Your task to perform on an android device: change the clock display to analog Image 0: 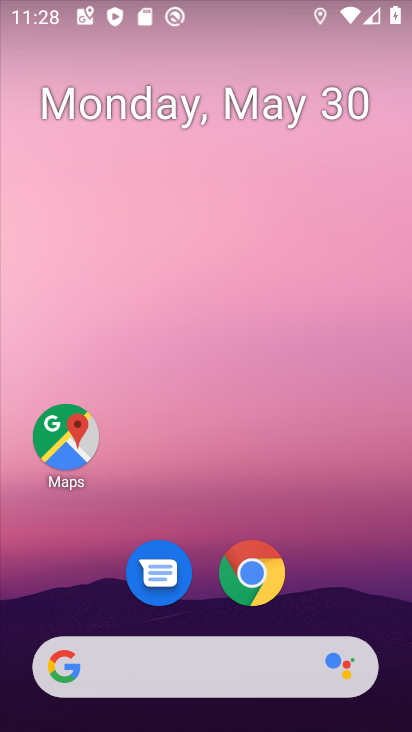
Step 0: drag from (210, 570) to (349, 3)
Your task to perform on an android device: change the clock display to analog Image 1: 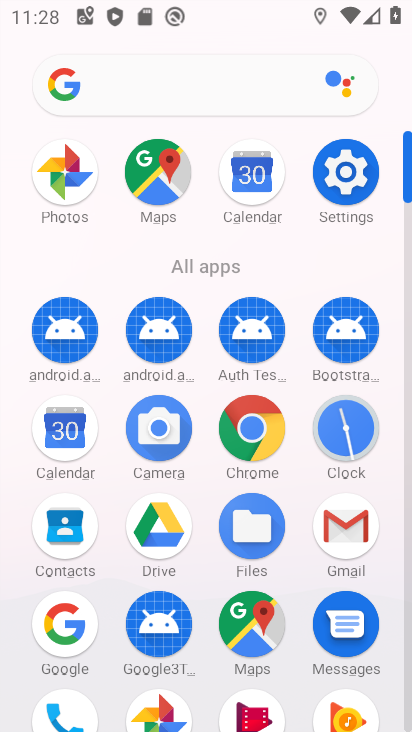
Step 1: click (343, 429)
Your task to perform on an android device: change the clock display to analog Image 2: 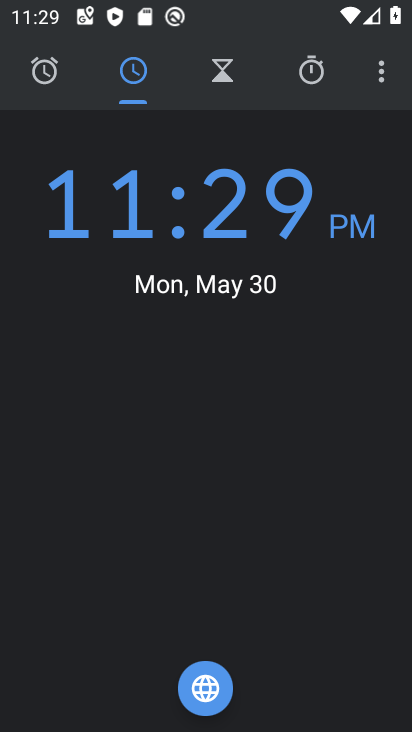
Step 2: click (381, 65)
Your task to perform on an android device: change the clock display to analog Image 3: 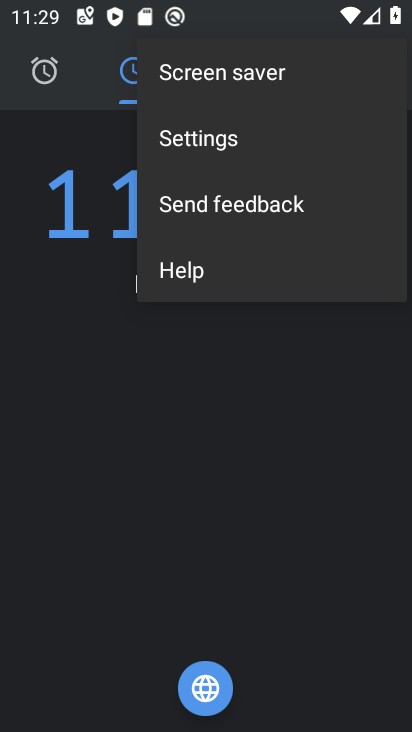
Step 3: click (265, 134)
Your task to perform on an android device: change the clock display to analog Image 4: 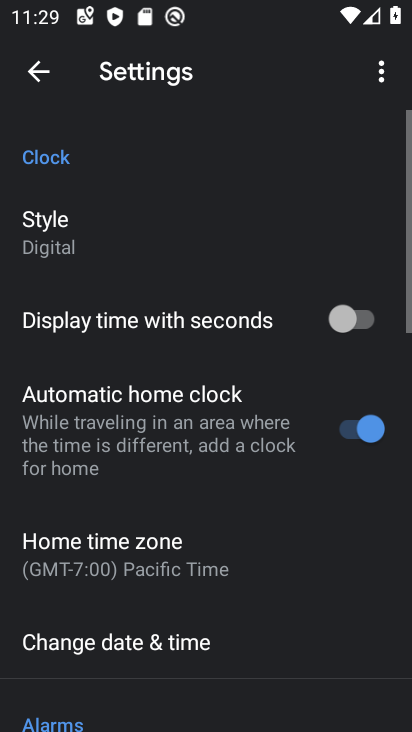
Step 4: click (34, 249)
Your task to perform on an android device: change the clock display to analog Image 5: 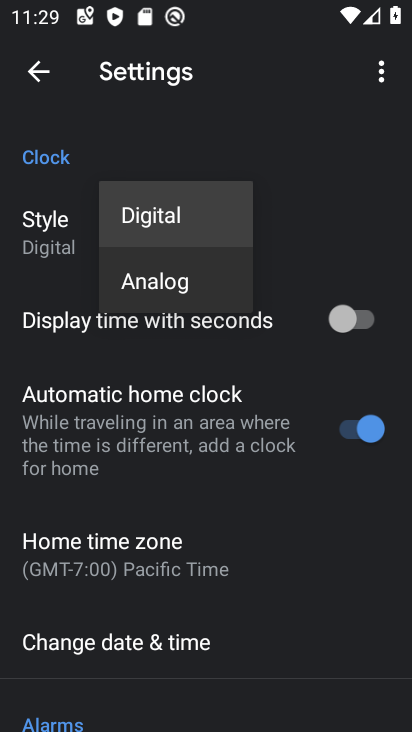
Step 5: click (139, 284)
Your task to perform on an android device: change the clock display to analog Image 6: 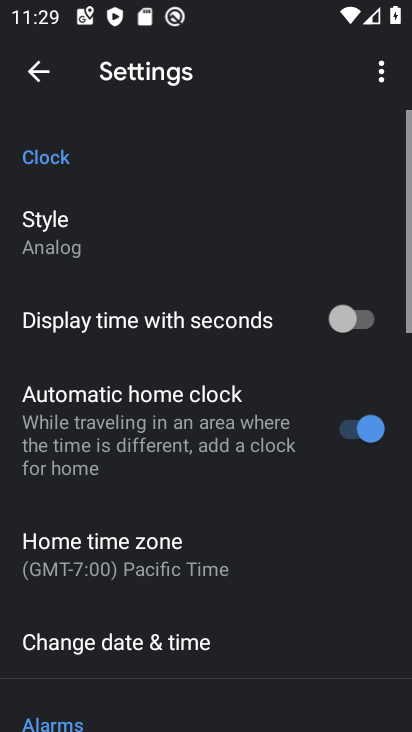
Step 6: task complete